Your task to perform on an android device: Search for a nightstand on IKEA. Image 0: 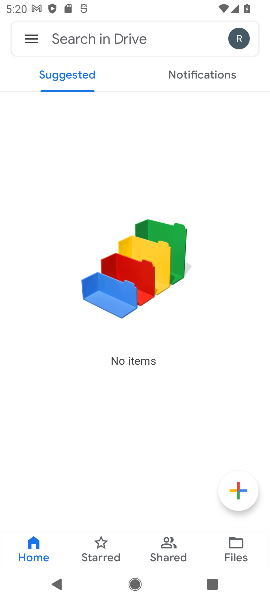
Step 0: press back button
Your task to perform on an android device: Search for a nightstand on IKEA. Image 1: 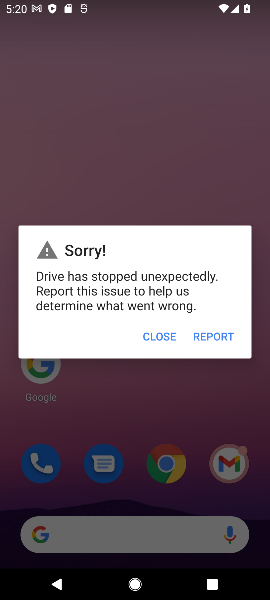
Step 1: click (182, 182)
Your task to perform on an android device: Search for a nightstand on IKEA. Image 2: 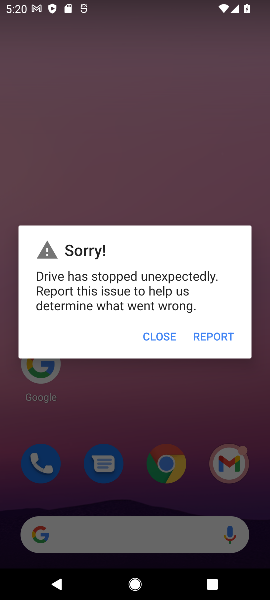
Step 2: click (147, 177)
Your task to perform on an android device: Search for a nightstand on IKEA. Image 3: 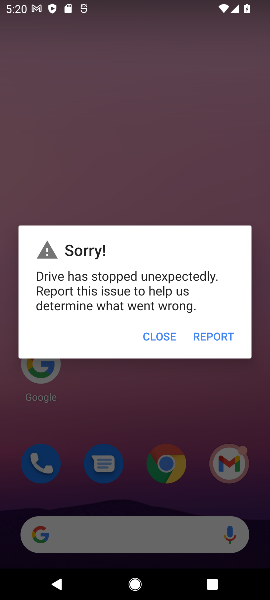
Step 3: click (152, 338)
Your task to perform on an android device: Search for a nightstand on IKEA. Image 4: 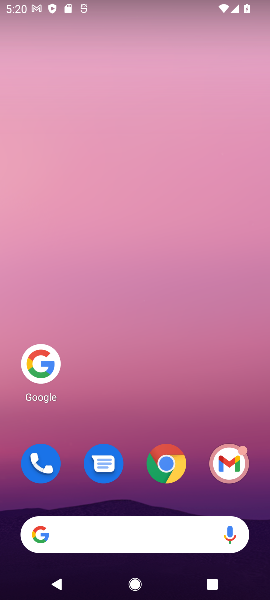
Step 4: click (26, 362)
Your task to perform on an android device: Search for a nightstand on IKEA. Image 5: 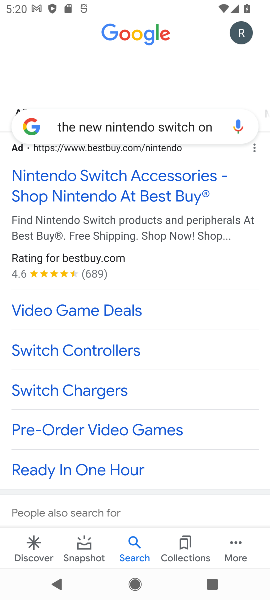
Step 5: click (153, 130)
Your task to perform on an android device: Search for a nightstand on IKEA. Image 6: 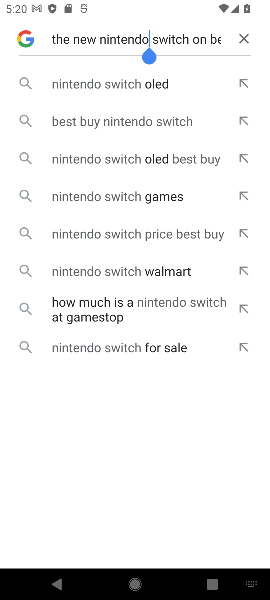
Step 6: click (236, 35)
Your task to perform on an android device: Search for a nightstand on IKEA. Image 7: 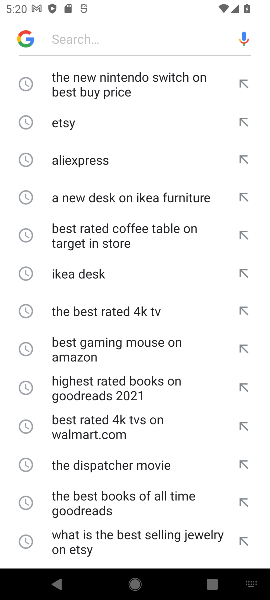
Step 7: click (122, 22)
Your task to perform on an android device: Search for a nightstand on IKEA. Image 8: 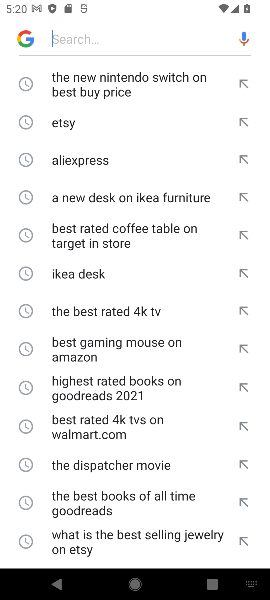
Step 8: type " a nightstand on IKEA "
Your task to perform on an android device: Search for a nightstand on IKEA. Image 9: 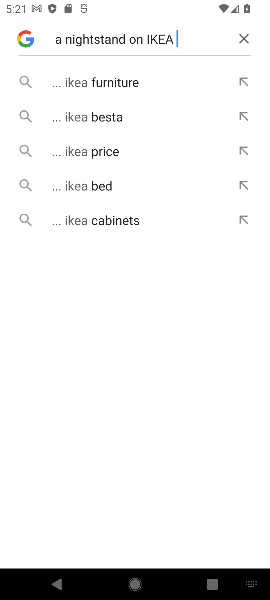
Step 9: click (88, 88)
Your task to perform on an android device: Search for a nightstand on IKEA. Image 10: 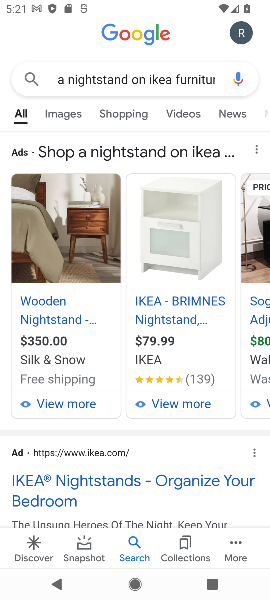
Step 10: task complete